Your task to perform on an android device: Go to location settings Image 0: 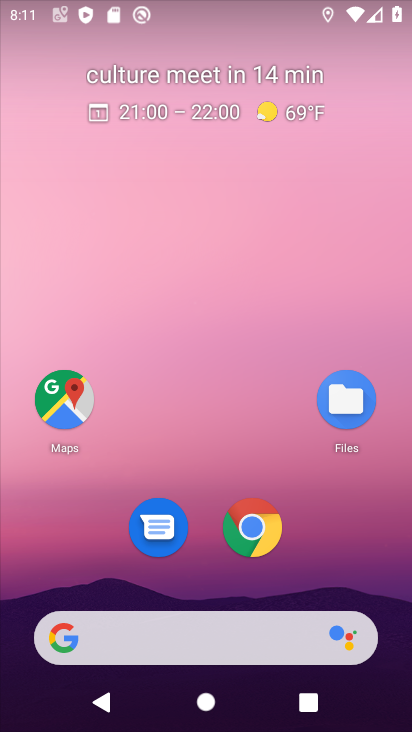
Step 0: drag from (294, 563) to (307, 97)
Your task to perform on an android device: Go to location settings Image 1: 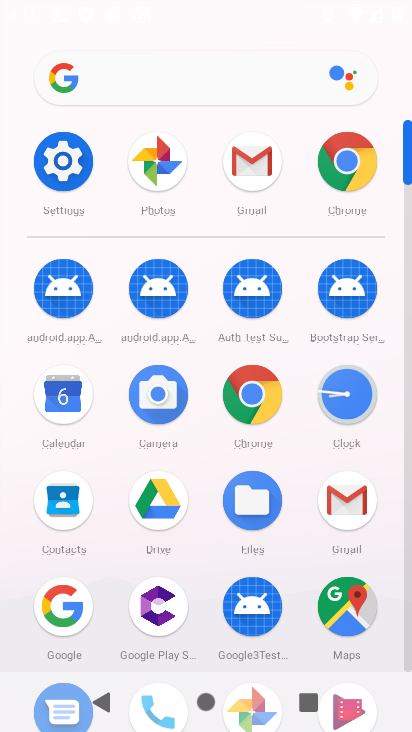
Step 1: click (61, 157)
Your task to perform on an android device: Go to location settings Image 2: 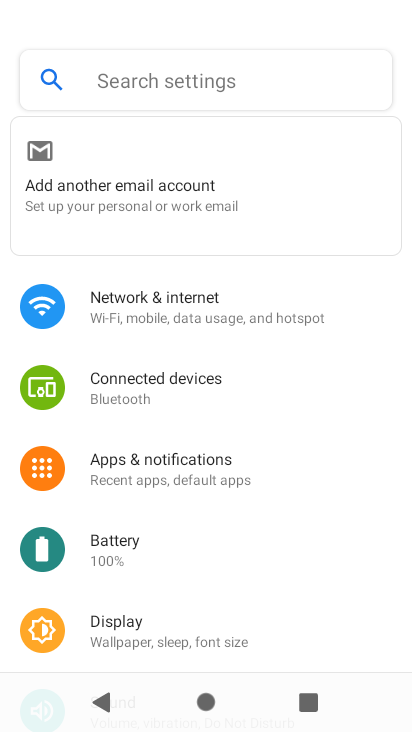
Step 2: drag from (222, 587) to (238, 181)
Your task to perform on an android device: Go to location settings Image 3: 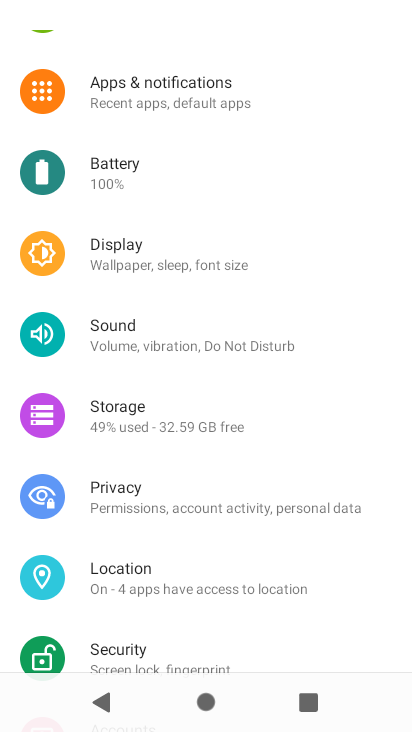
Step 3: click (192, 550)
Your task to perform on an android device: Go to location settings Image 4: 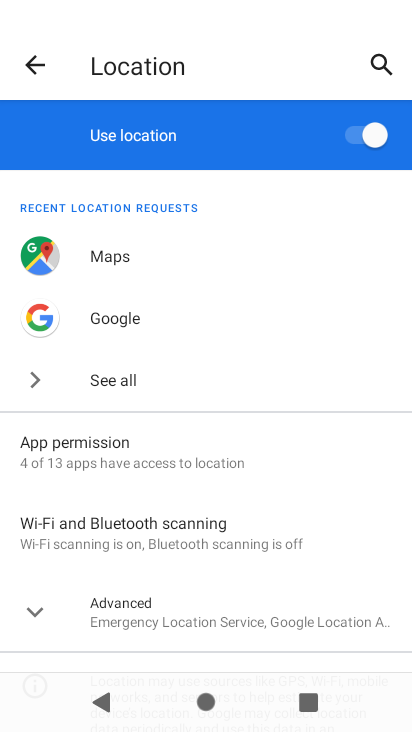
Step 4: task complete